Your task to perform on an android device: Go to settings Image 0: 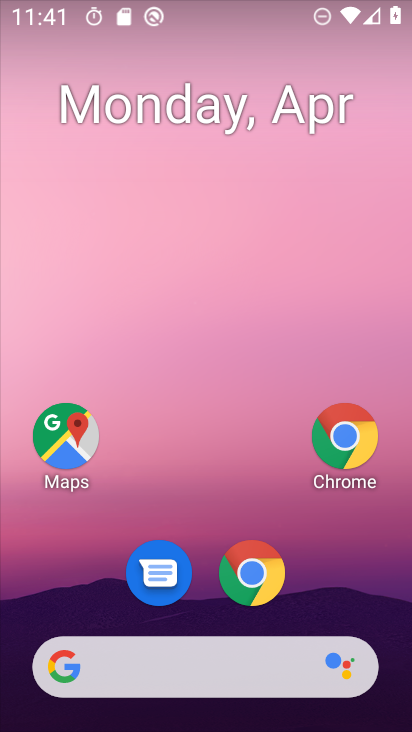
Step 0: drag from (397, 425) to (358, 55)
Your task to perform on an android device: Go to settings Image 1: 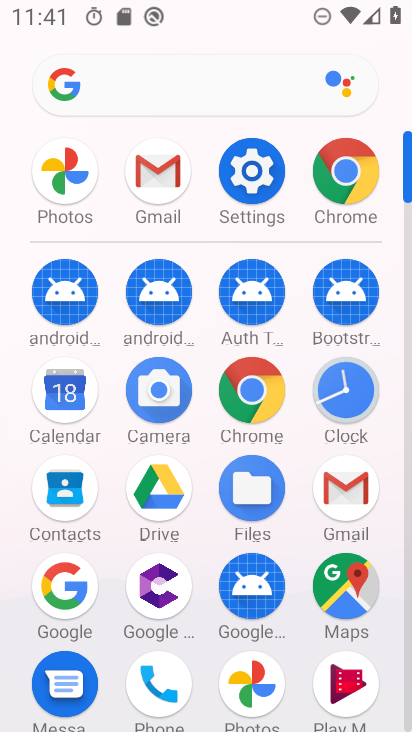
Step 1: click (234, 163)
Your task to perform on an android device: Go to settings Image 2: 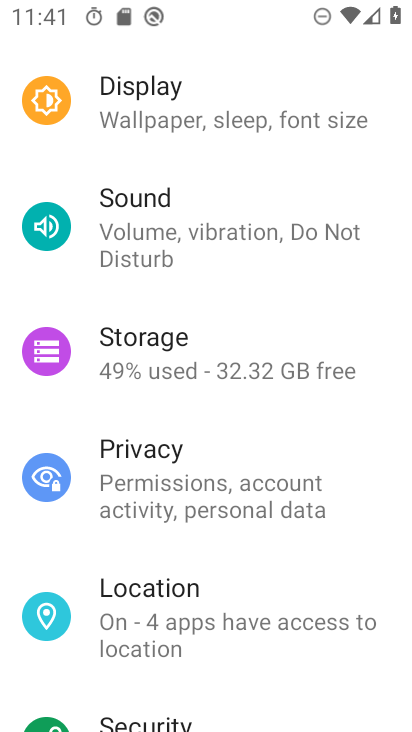
Step 2: task complete